Your task to perform on an android device: open device folders in google photos Image 0: 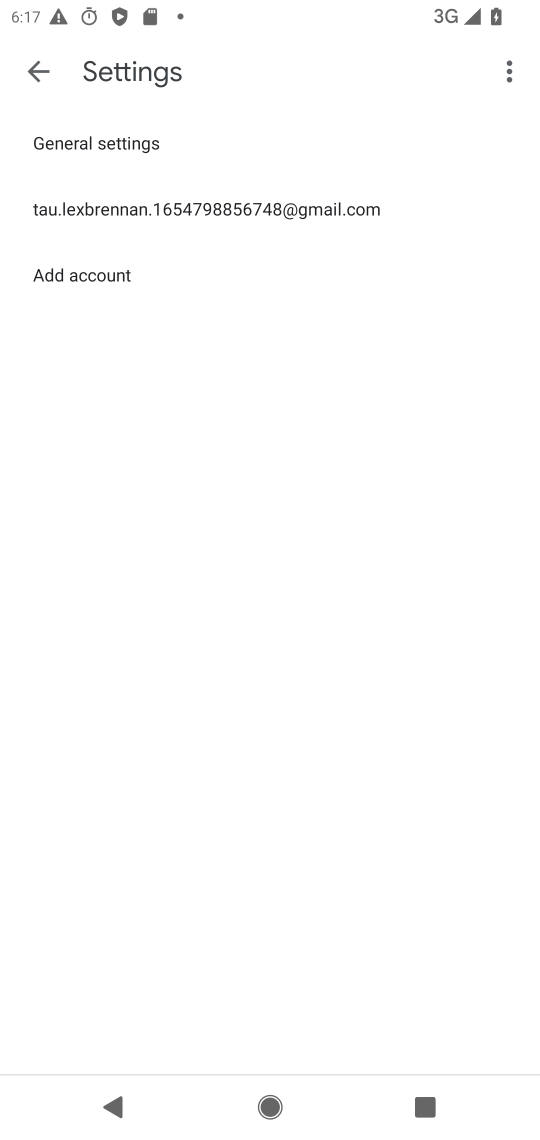
Step 0: press home button
Your task to perform on an android device: open device folders in google photos Image 1: 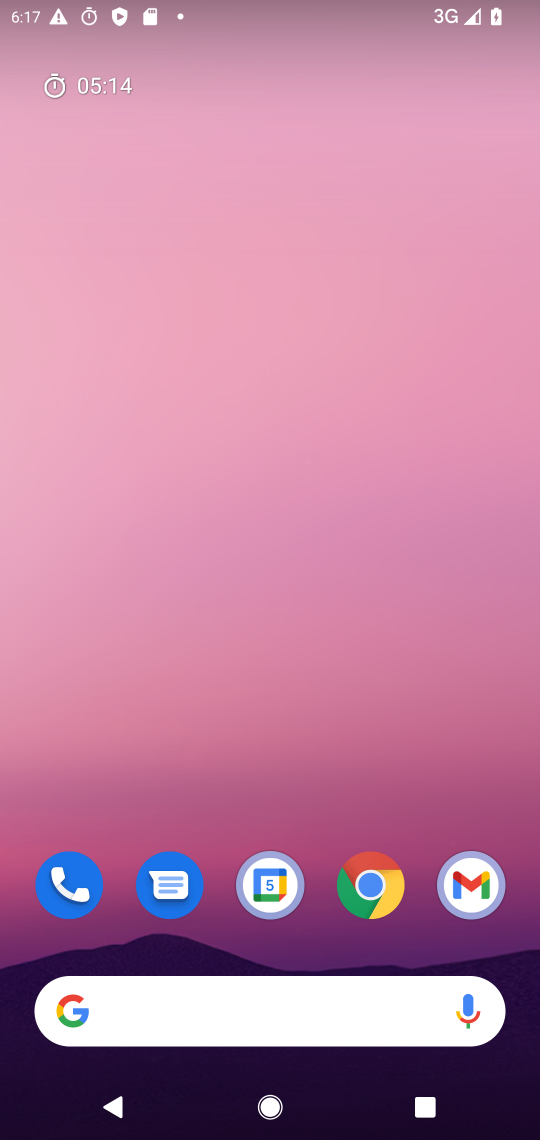
Step 1: drag from (278, 962) to (247, 360)
Your task to perform on an android device: open device folders in google photos Image 2: 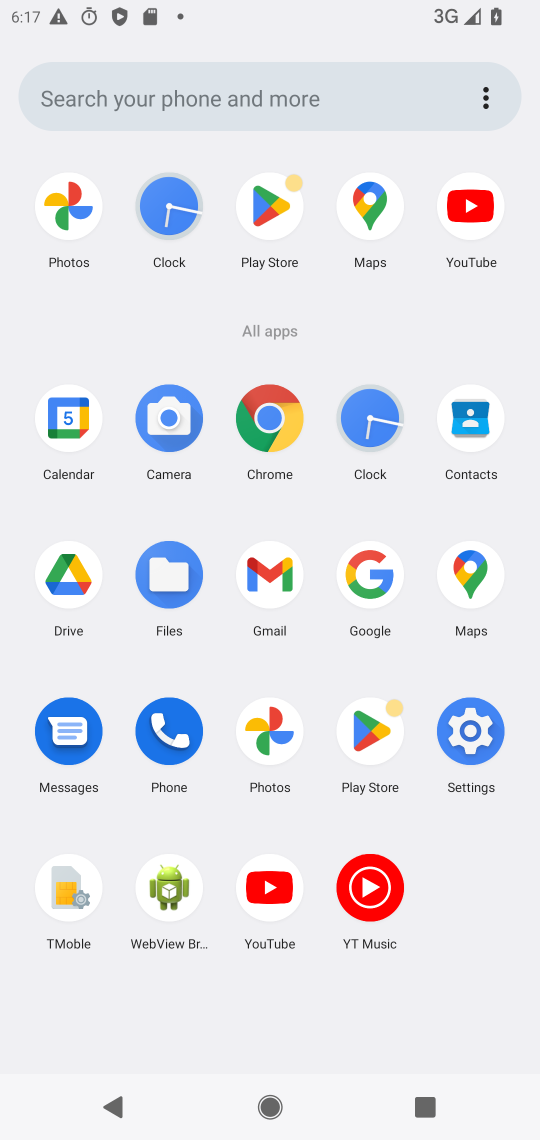
Step 2: click (269, 738)
Your task to perform on an android device: open device folders in google photos Image 3: 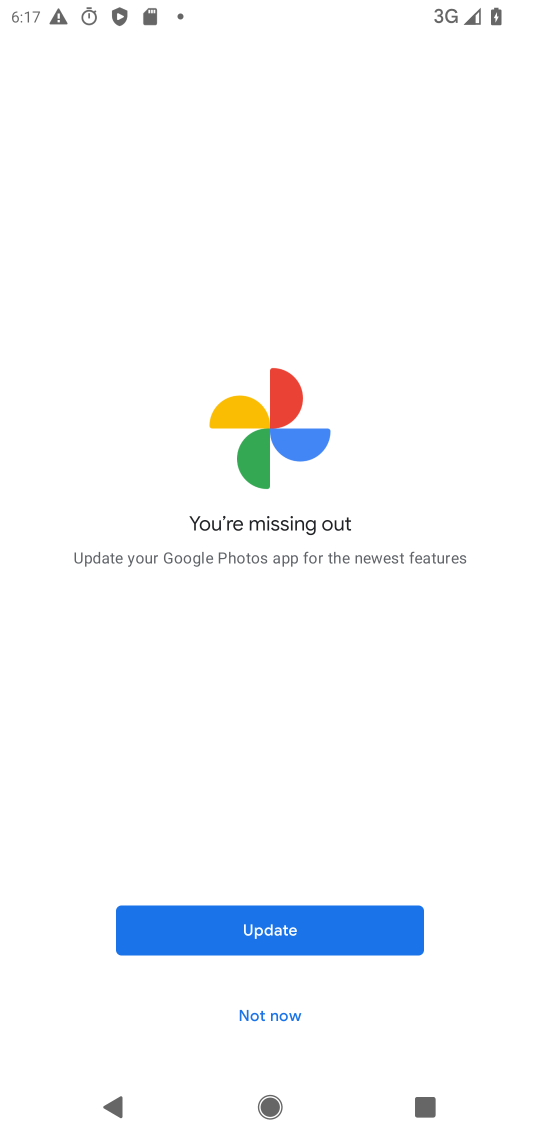
Step 3: click (260, 1005)
Your task to perform on an android device: open device folders in google photos Image 4: 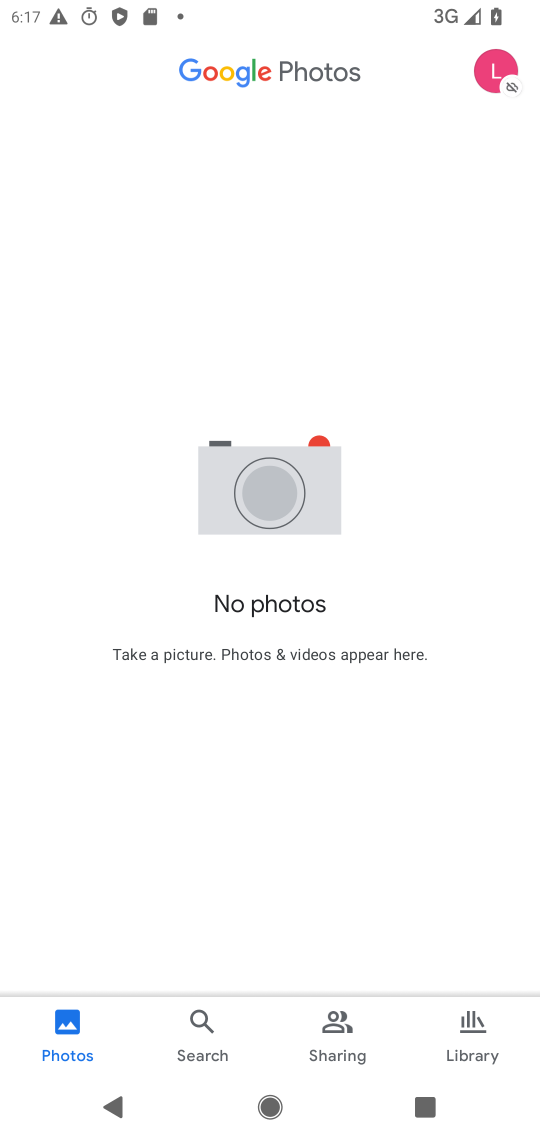
Step 4: click (502, 62)
Your task to perform on an android device: open device folders in google photos Image 5: 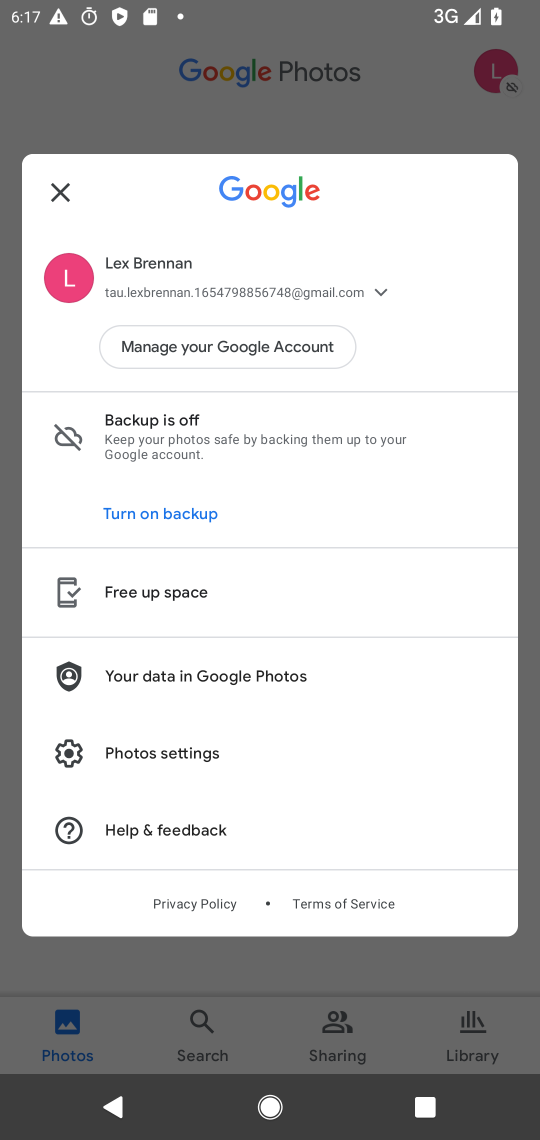
Step 5: task complete